Your task to perform on an android device: turn off improve location accuracy Image 0: 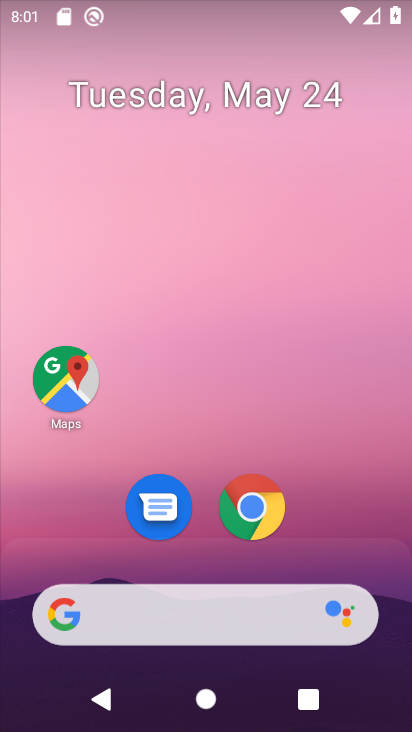
Step 0: drag from (217, 521) to (257, 272)
Your task to perform on an android device: turn off improve location accuracy Image 1: 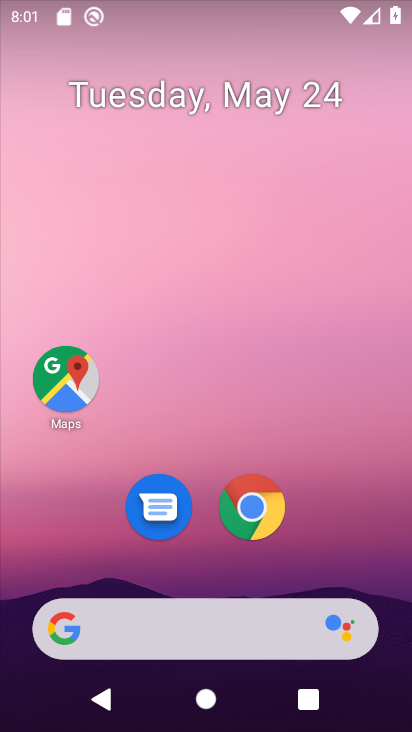
Step 1: drag from (198, 564) to (257, 17)
Your task to perform on an android device: turn off improve location accuracy Image 2: 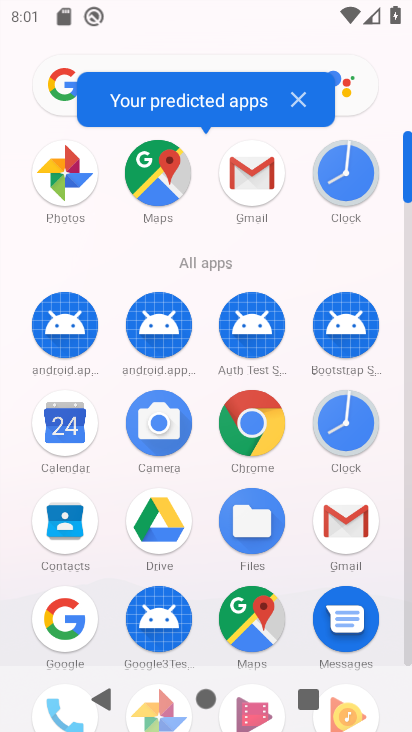
Step 2: drag from (217, 646) to (290, 125)
Your task to perform on an android device: turn off improve location accuracy Image 3: 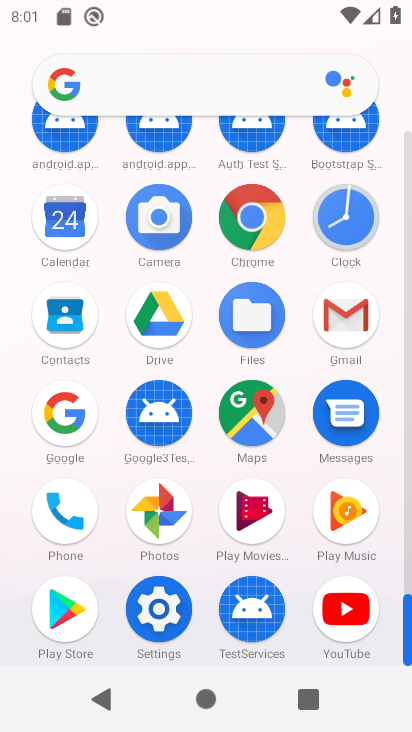
Step 3: click (153, 594)
Your task to perform on an android device: turn off improve location accuracy Image 4: 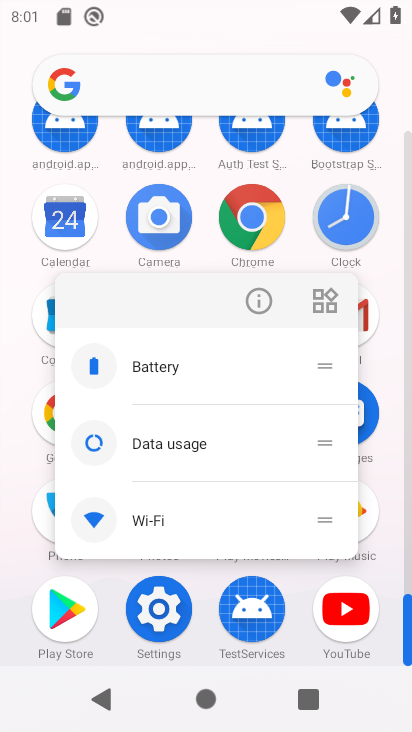
Step 4: click (258, 300)
Your task to perform on an android device: turn off improve location accuracy Image 5: 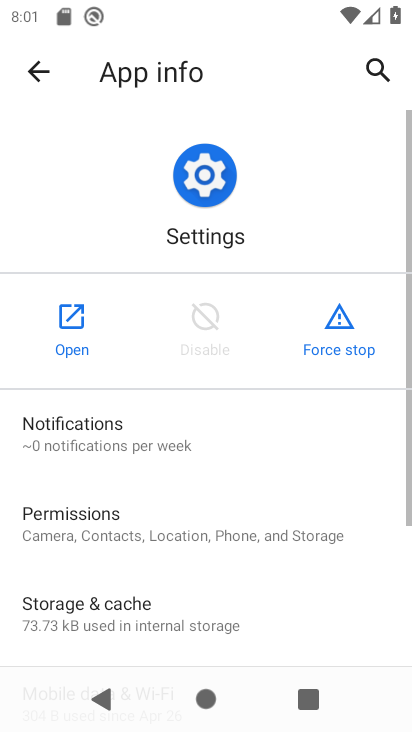
Step 5: click (61, 332)
Your task to perform on an android device: turn off improve location accuracy Image 6: 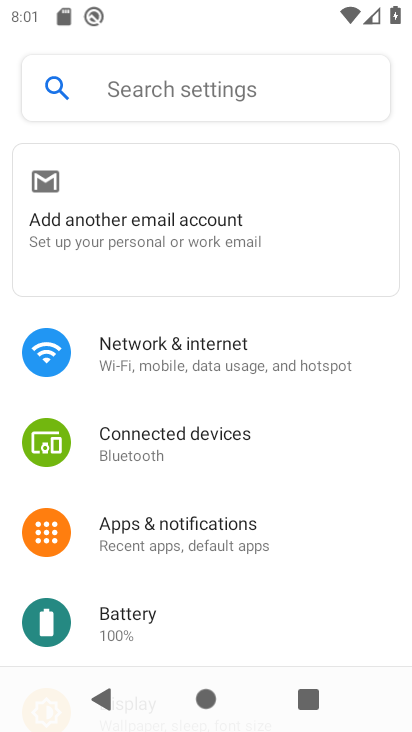
Step 6: drag from (187, 561) to (291, 188)
Your task to perform on an android device: turn off improve location accuracy Image 7: 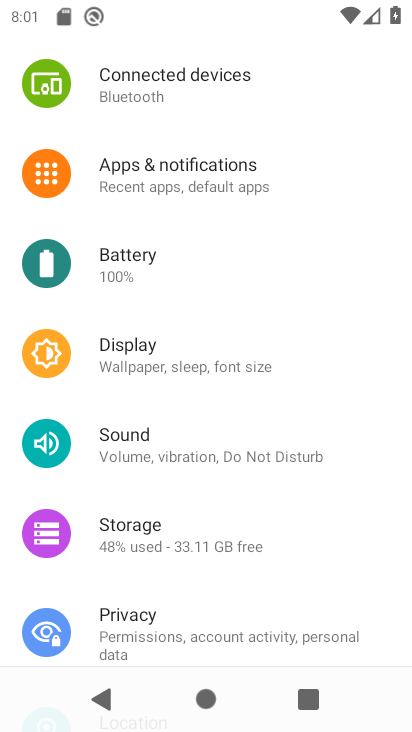
Step 7: drag from (169, 586) to (289, 11)
Your task to perform on an android device: turn off improve location accuracy Image 8: 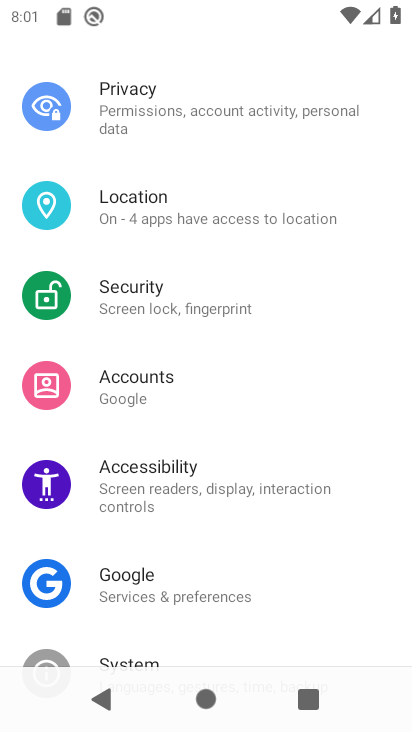
Step 8: click (181, 212)
Your task to perform on an android device: turn off improve location accuracy Image 9: 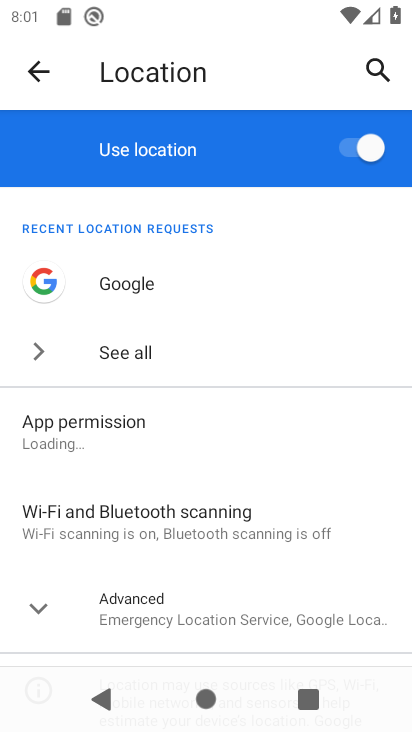
Step 9: click (144, 601)
Your task to perform on an android device: turn off improve location accuracy Image 10: 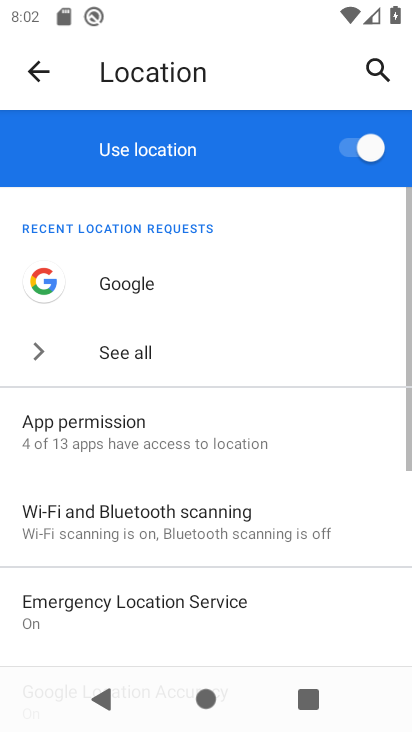
Step 10: drag from (219, 566) to (355, 64)
Your task to perform on an android device: turn off improve location accuracy Image 11: 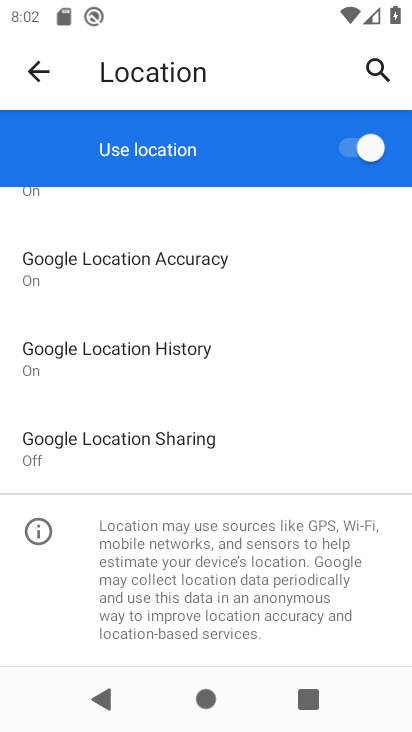
Step 11: click (172, 263)
Your task to perform on an android device: turn off improve location accuracy Image 12: 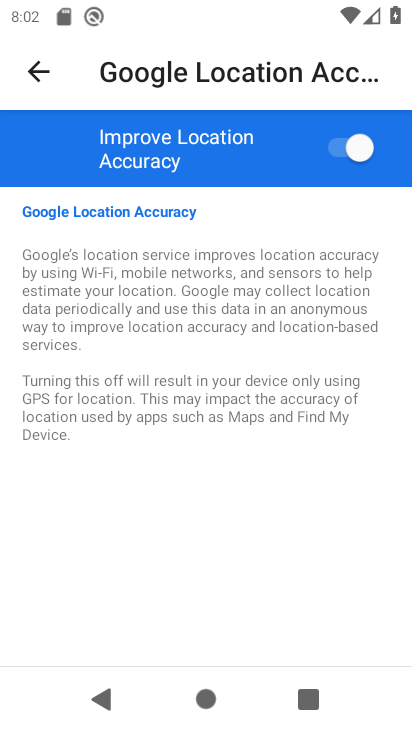
Step 12: click (354, 157)
Your task to perform on an android device: turn off improve location accuracy Image 13: 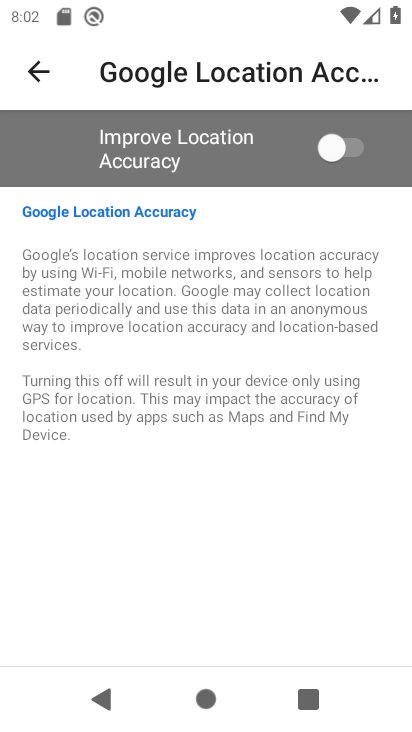
Step 13: task complete